Your task to perform on an android device: What's the weather? Image 0: 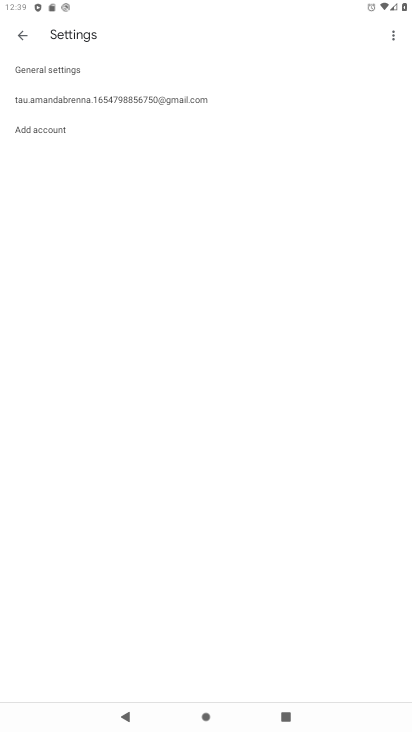
Step 0: press home button
Your task to perform on an android device: What's the weather? Image 1: 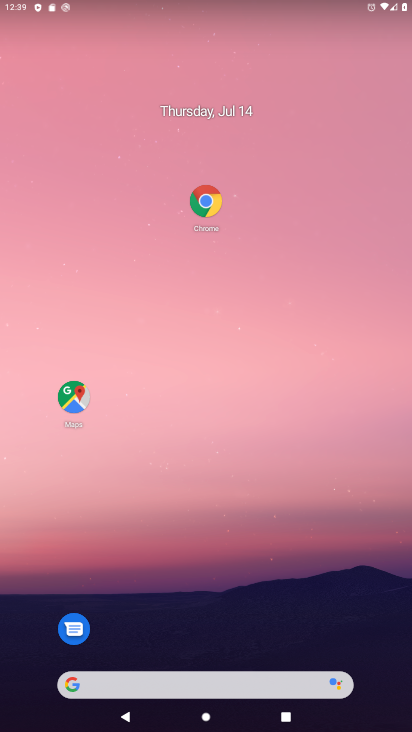
Step 1: click (266, 681)
Your task to perform on an android device: What's the weather? Image 2: 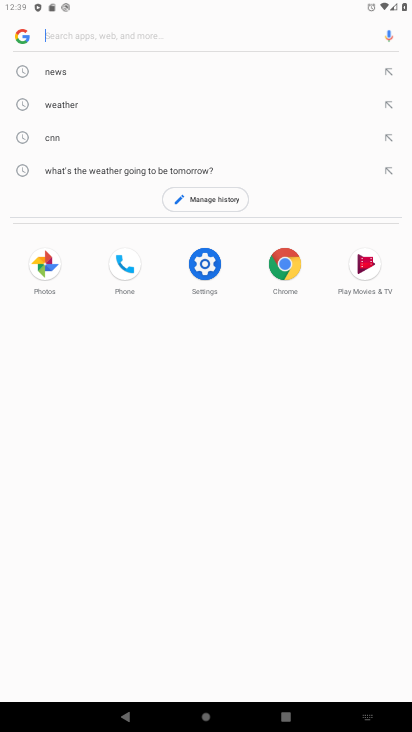
Step 2: click (53, 106)
Your task to perform on an android device: What's the weather? Image 3: 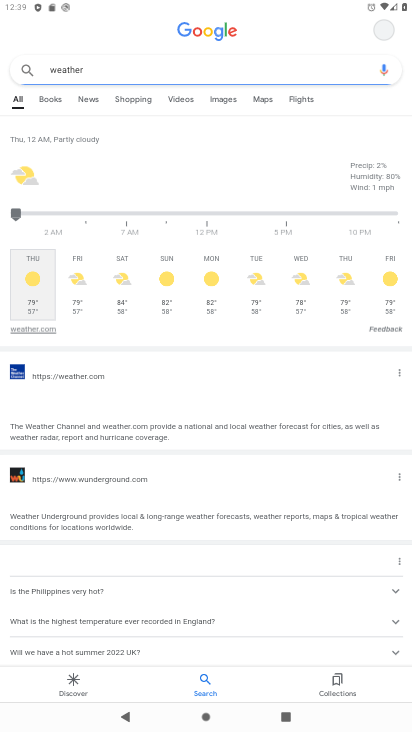
Step 3: task complete